Your task to perform on an android device: open chrome and create a bookmark for the current page Image 0: 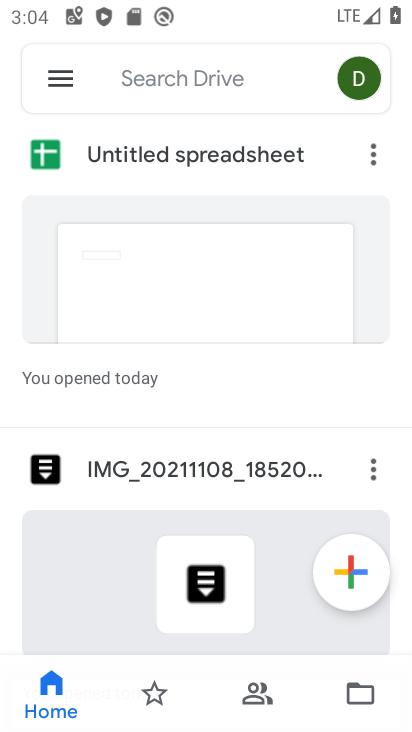
Step 0: press home button
Your task to perform on an android device: open chrome and create a bookmark for the current page Image 1: 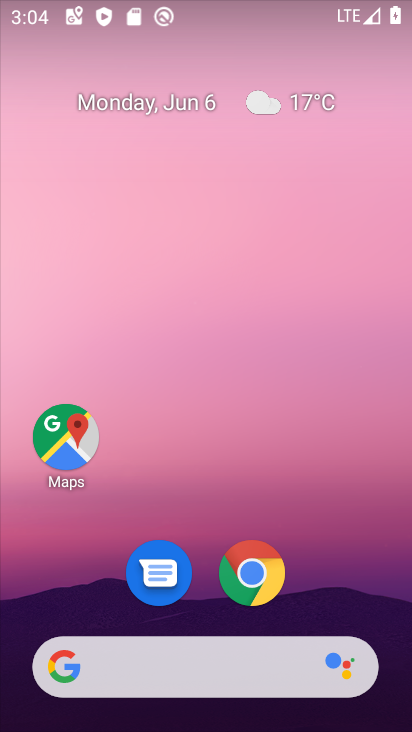
Step 1: drag from (369, 577) to (361, 156)
Your task to perform on an android device: open chrome and create a bookmark for the current page Image 2: 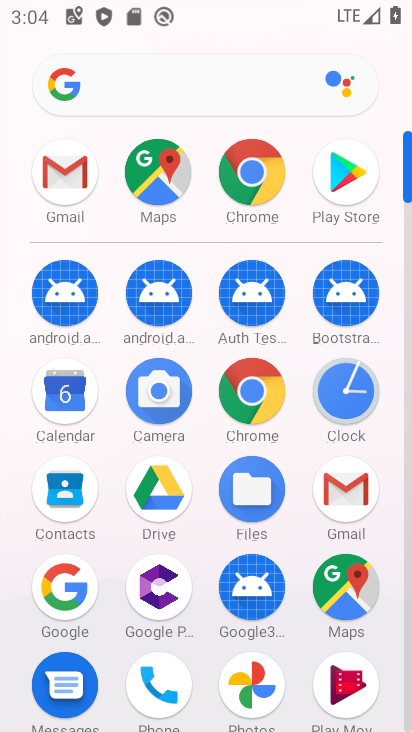
Step 2: click (259, 393)
Your task to perform on an android device: open chrome and create a bookmark for the current page Image 3: 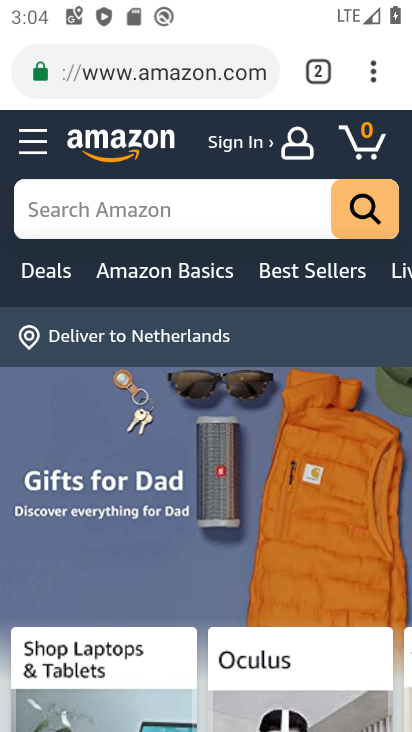
Step 3: click (377, 78)
Your task to perform on an android device: open chrome and create a bookmark for the current page Image 4: 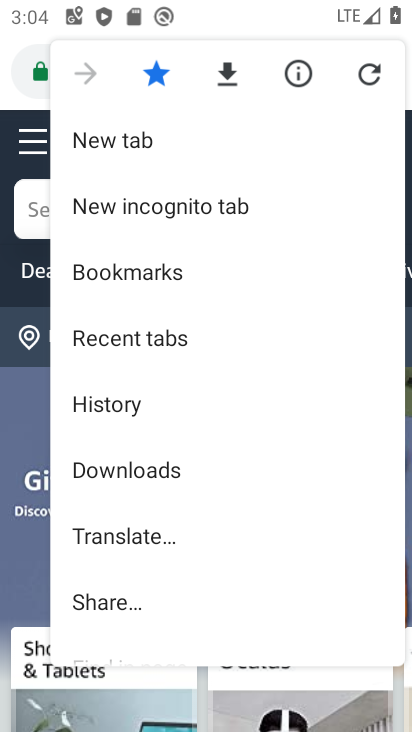
Step 4: task complete